Your task to perform on an android device: clear history in the chrome app Image 0: 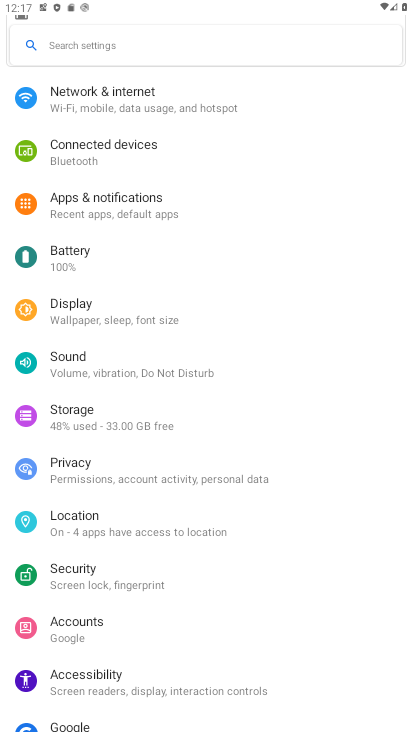
Step 0: press home button
Your task to perform on an android device: clear history in the chrome app Image 1: 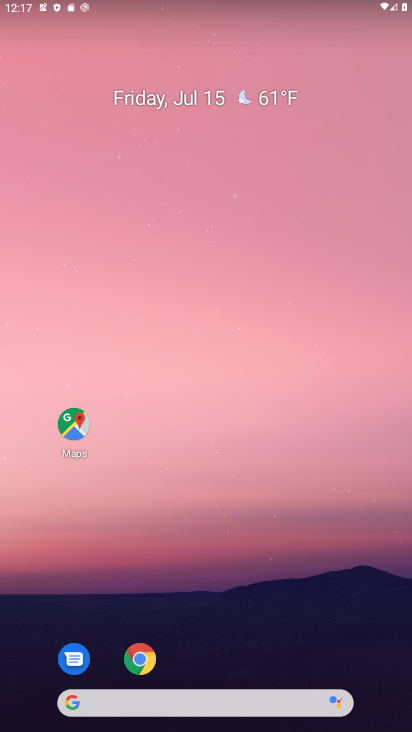
Step 1: click (140, 657)
Your task to perform on an android device: clear history in the chrome app Image 2: 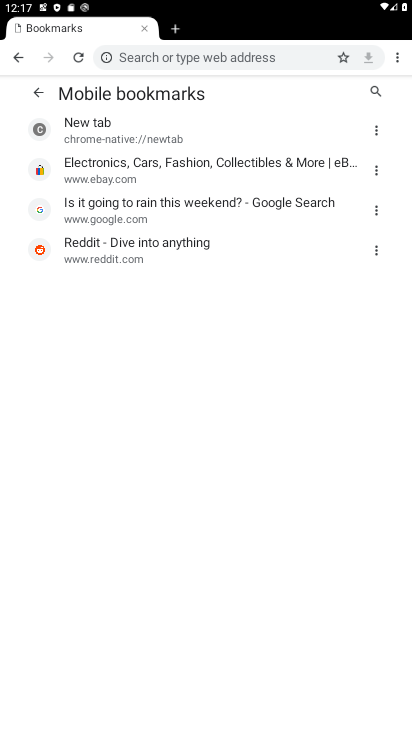
Step 2: click (396, 59)
Your task to perform on an android device: clear history in the chrome app Image 3: 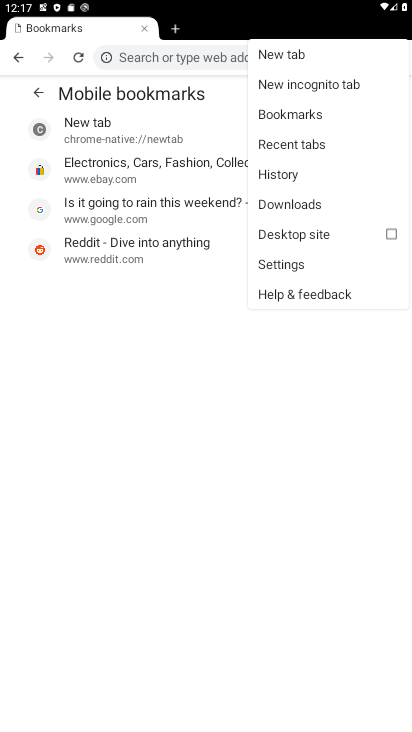
Step 3: click (287, 173)
Your task to perform on an android device: clear history in the chrome app Image 4: 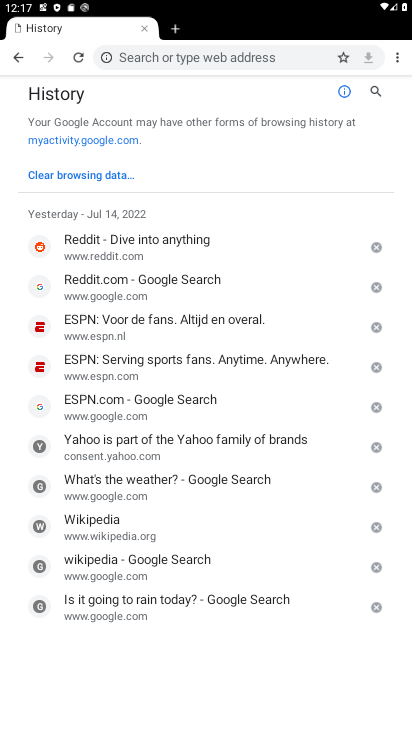
Step 4: click (108, 176)
Your task to perform on an android device: clear history in the chrome app Image 5: 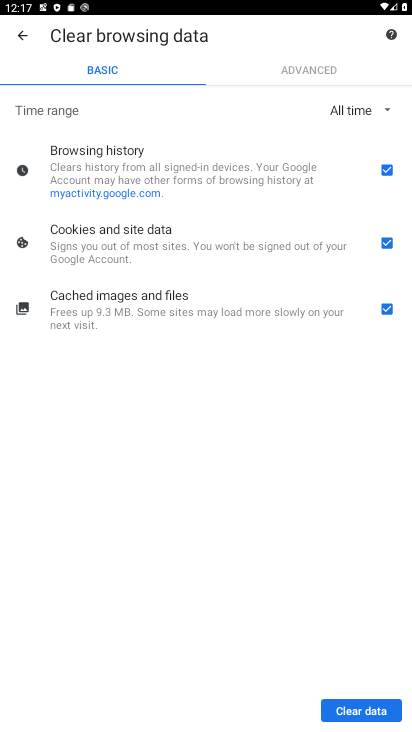
Step 5: click (367, 709)
Your task to perform on an android device: clear history in the chrome app Image 6: 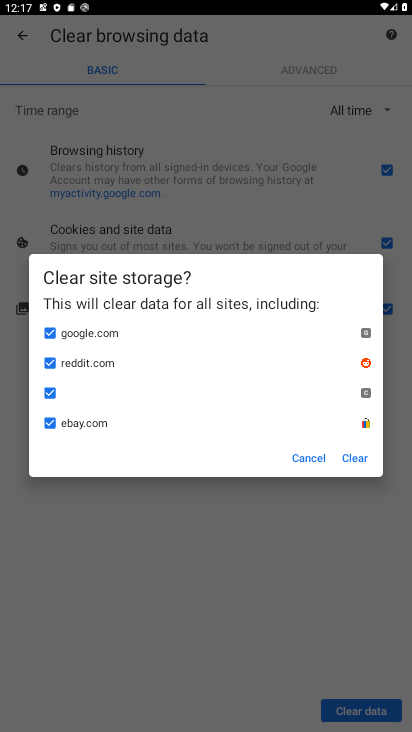
Step 6: click (354, 463)
Your task to perform on an android device: clear history in the chrome app Image 7: 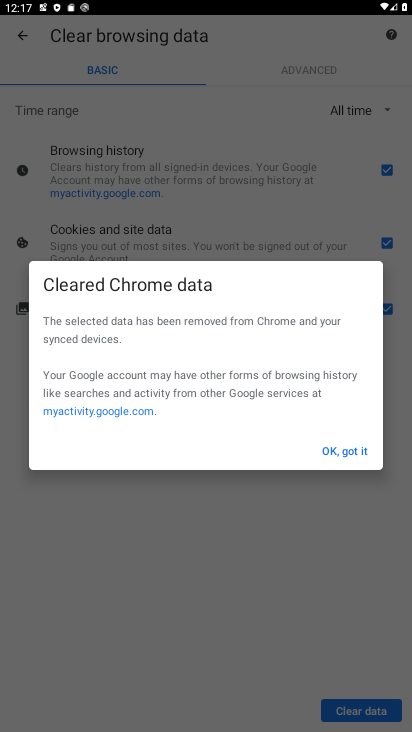
Step 7: click (354, 453)
Your task to perform on an android device: clear history in the chrome app Image 8: 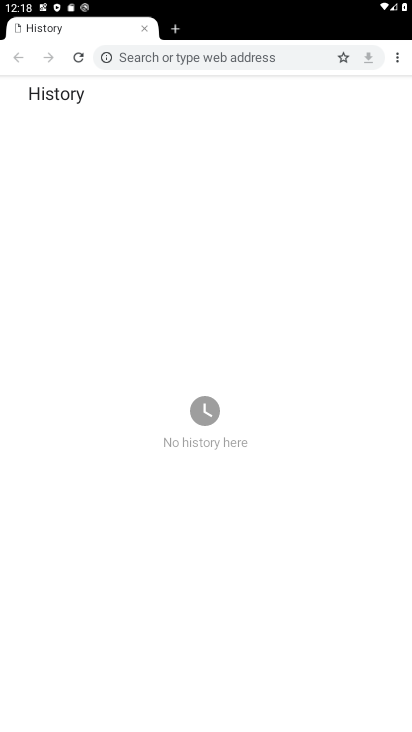
Step 8: task complete